Your task to perform on an android device: open app "Facebook" Image 0: 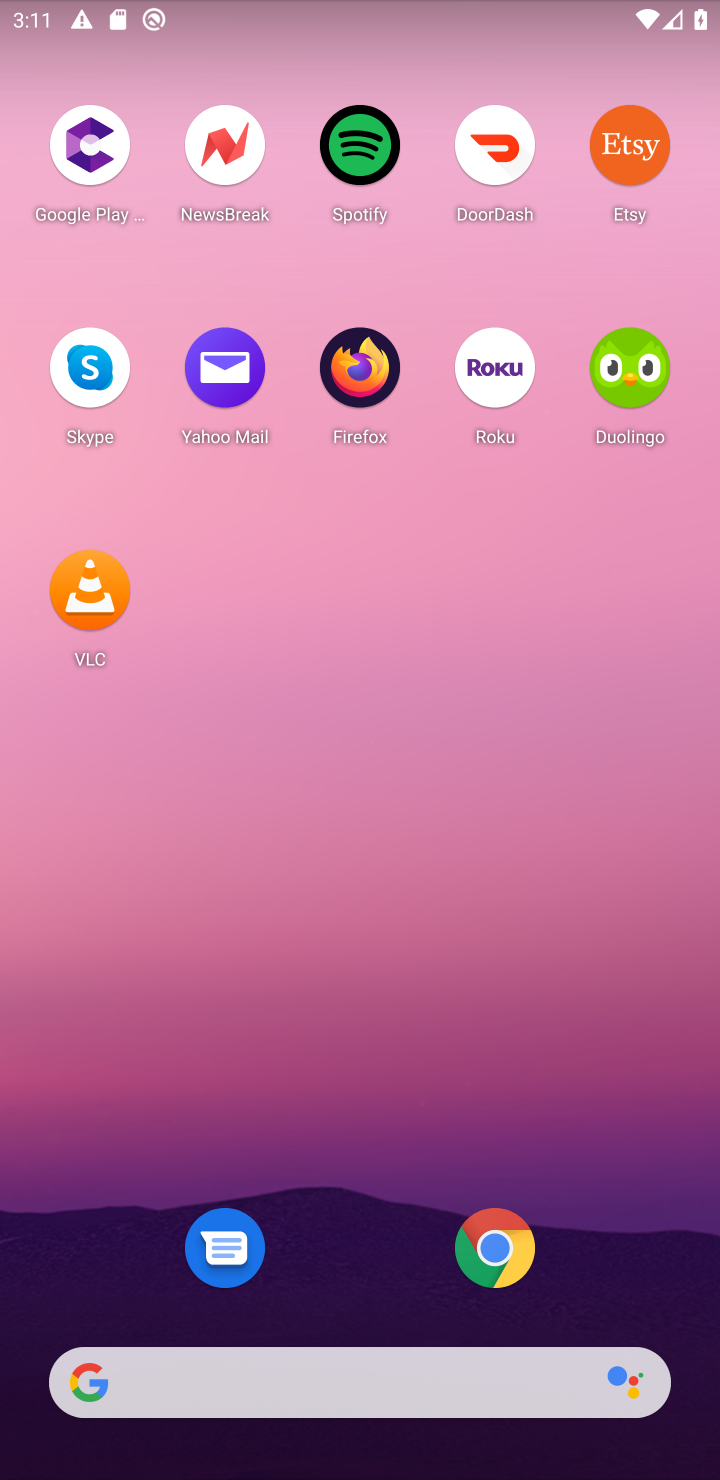
Step 0: drag from (359, 1334) to (296, 246)
Your task to perform on an android device: open app "Facebook" Image 1: 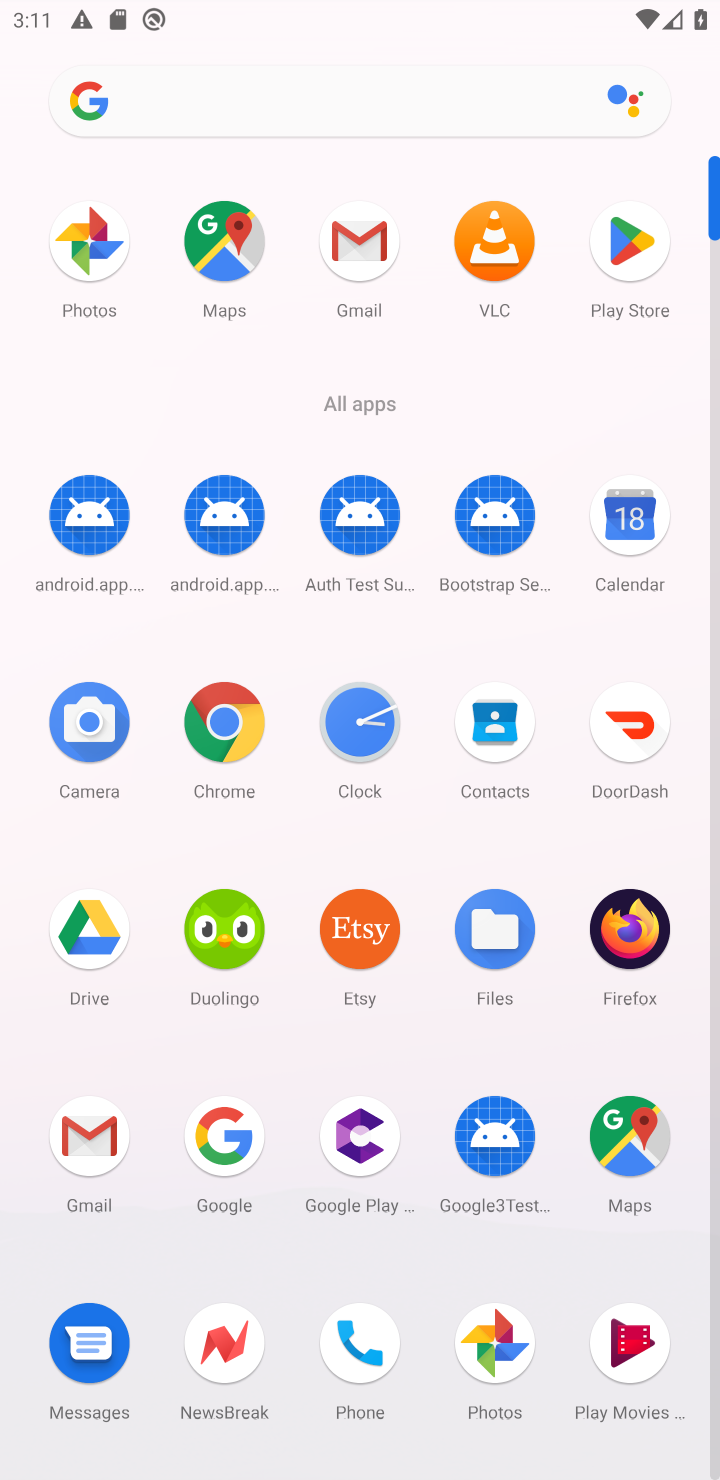
Step 1: click (622, 235)
Your task to perform on an android device: open app "Facebook" Image 2: 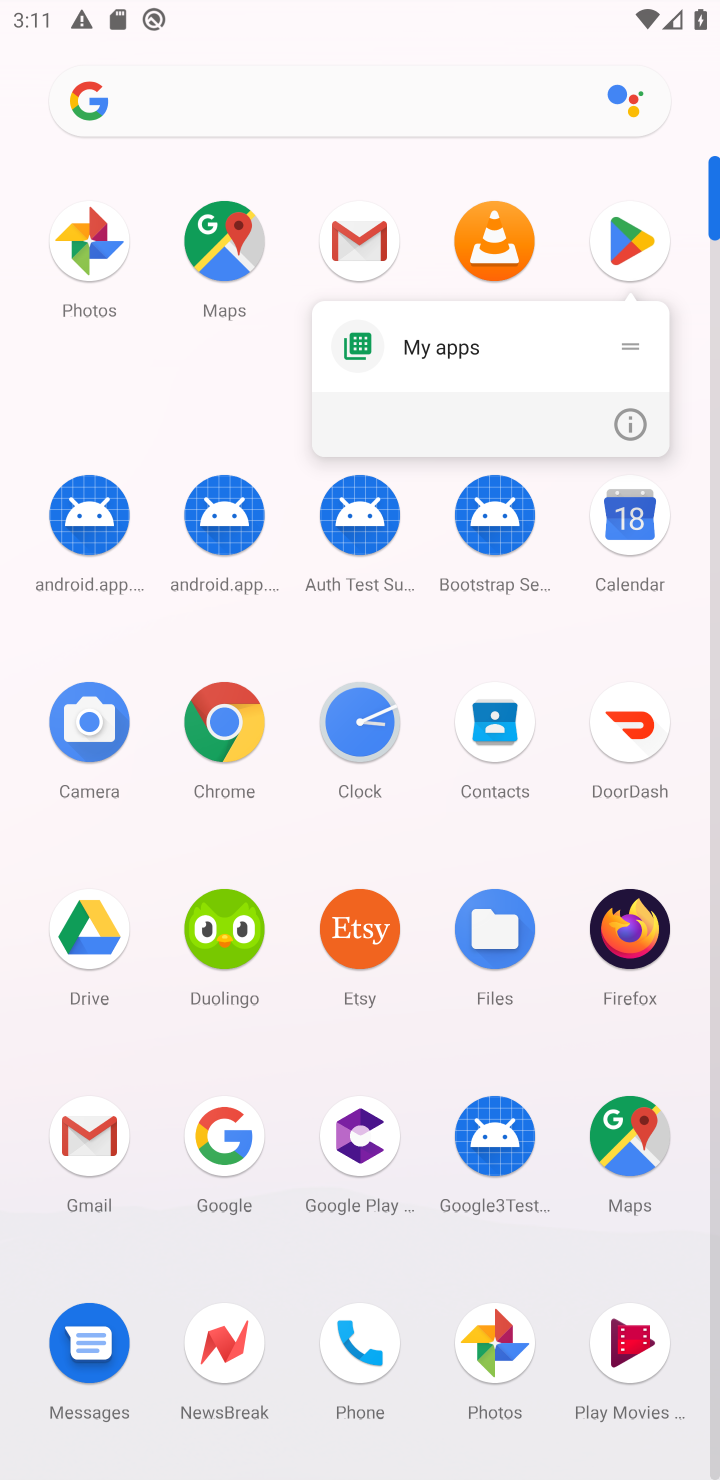
Step 2: click (624, 237)
Your task to perform on an android device: open app "Facebook" Image 3: 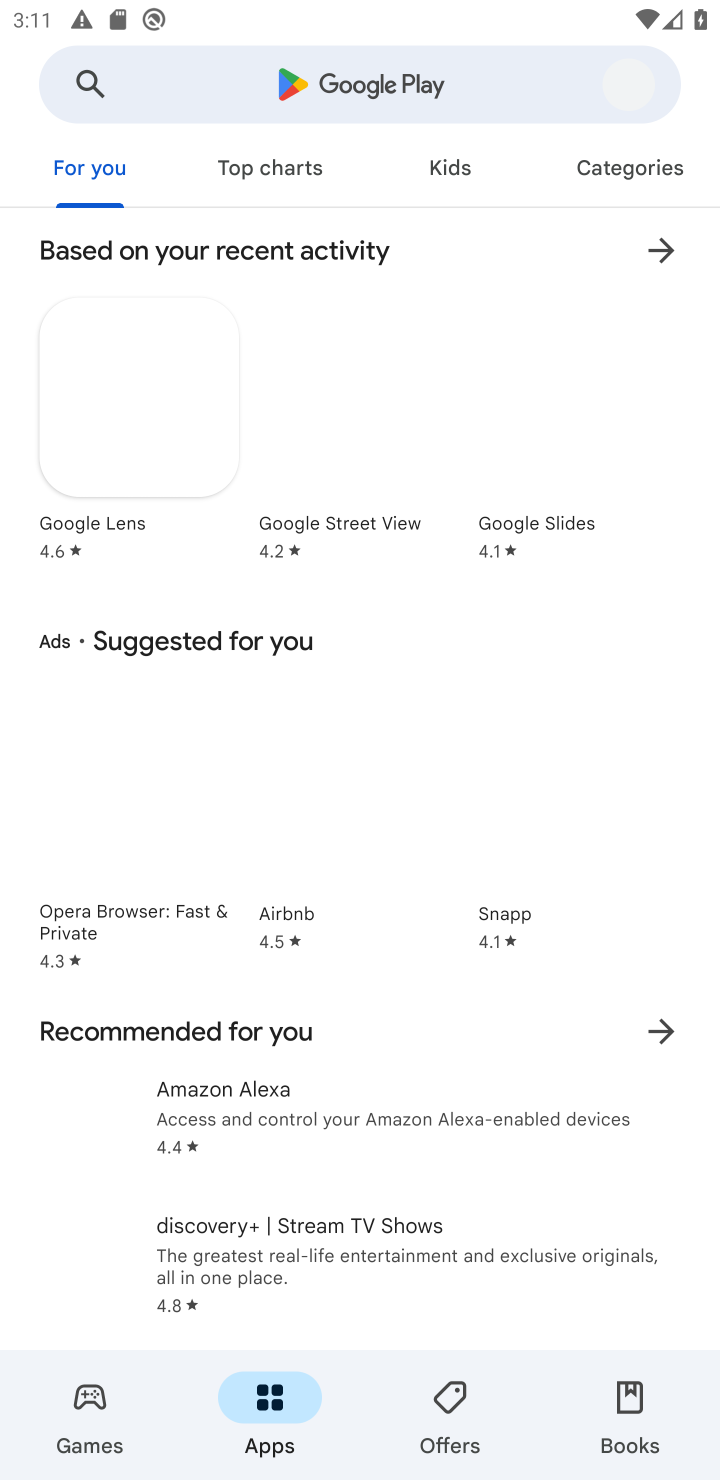
Step 3: click (435, 94)
Your task to perform on an android device: open app "Facebook" Image 4: 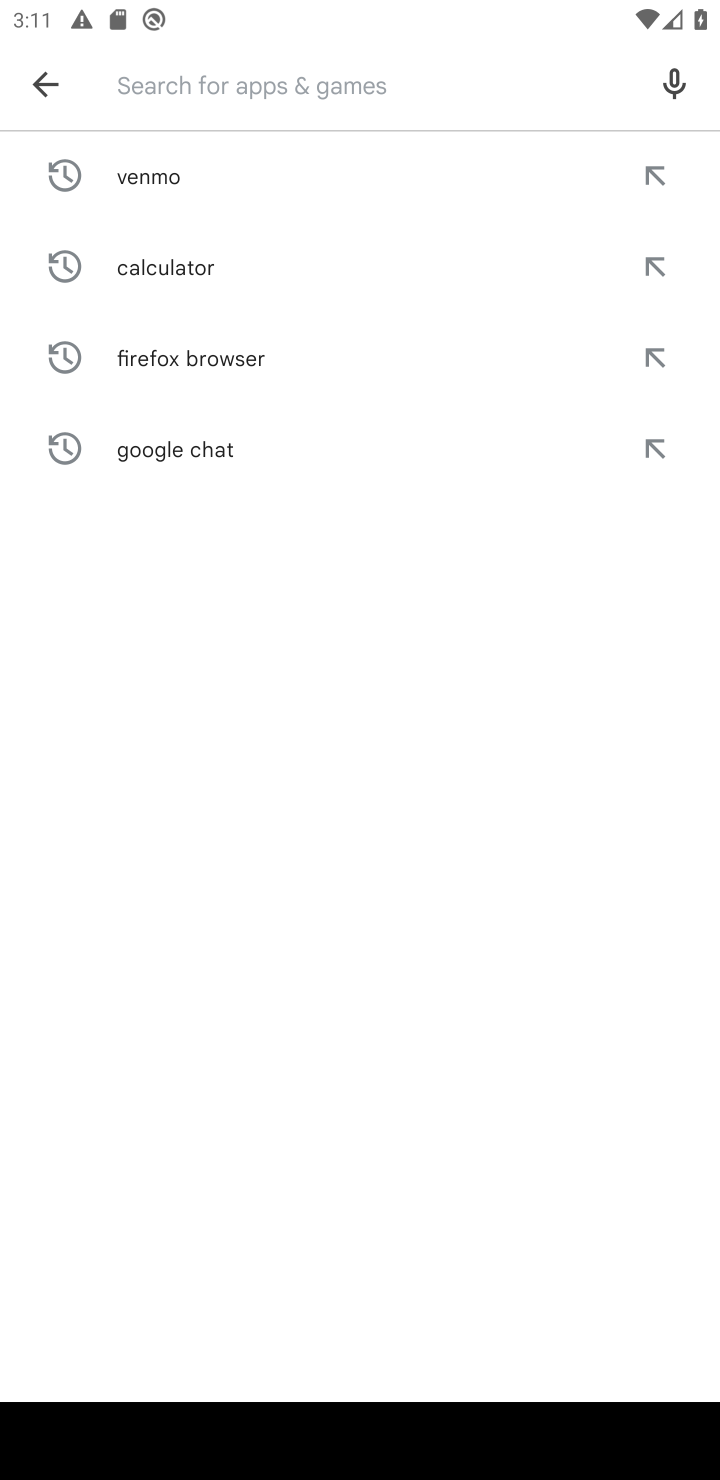
Step 4: type "Facebook"
Your task to perform on an android device: open app "Facebook" Image 5: 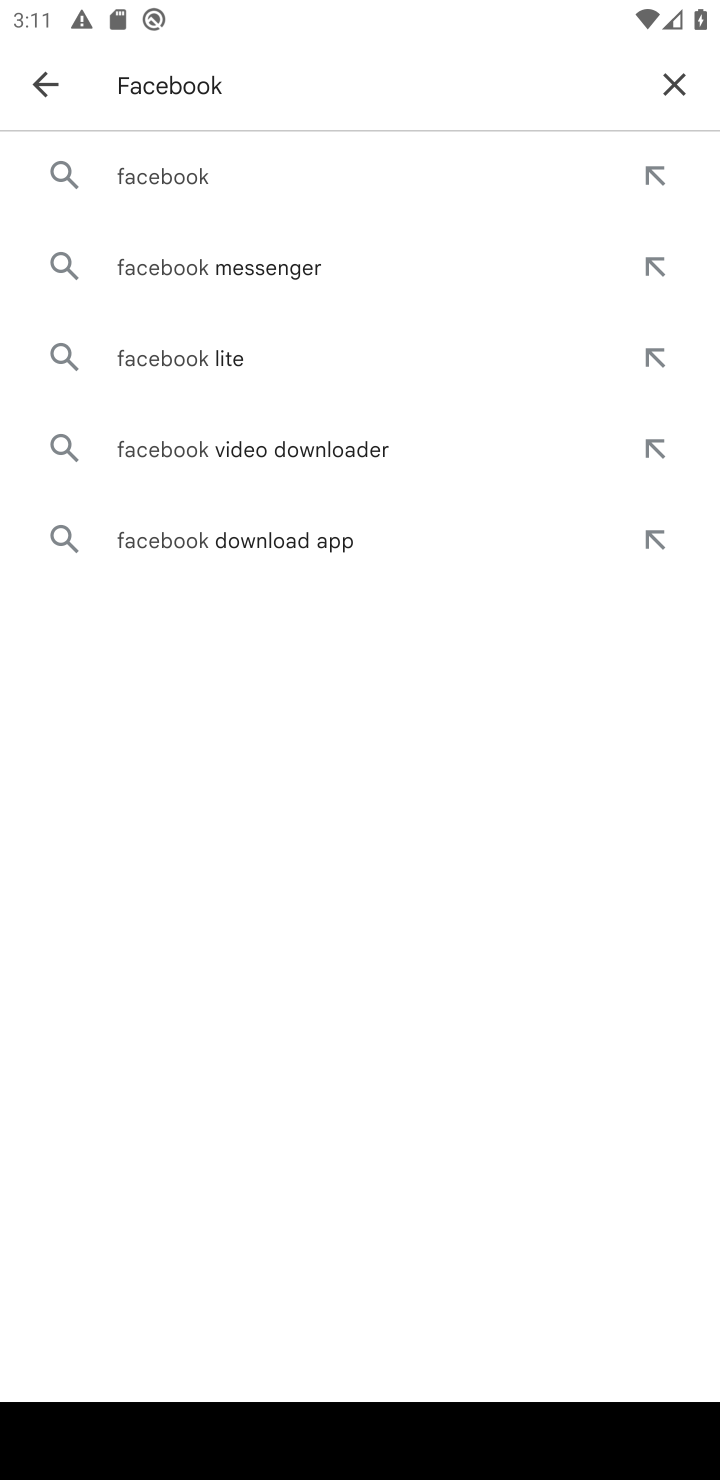
Step 5: click (178, 179)
Your task to perform on an android device: open app "Facebook" Image 6: 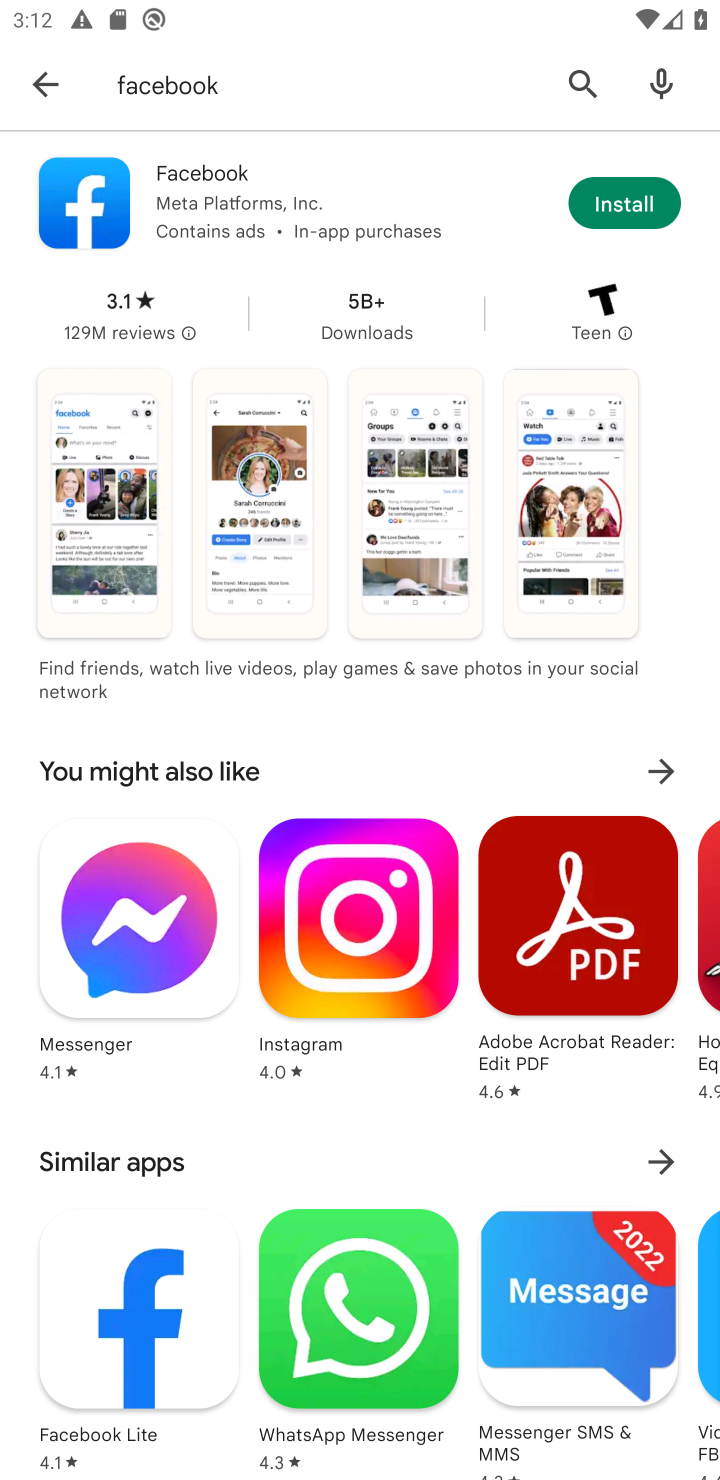
Step 6: task complete